Your task to perform on an android device: Do I have any events today? Image 0: 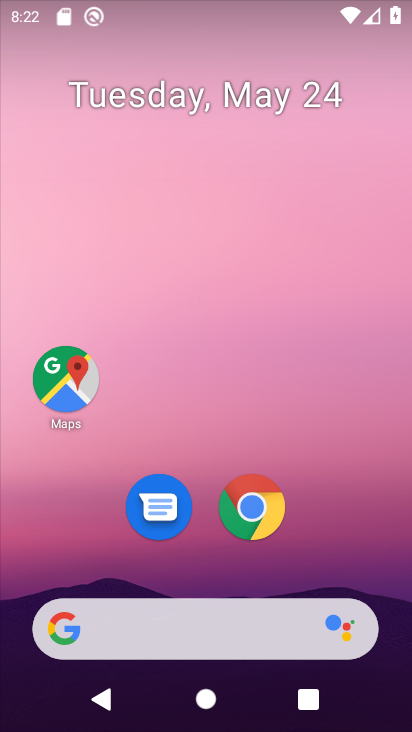
Step 0: press home button
Your task to perform on an android device: Do I have any events today? Image 1: 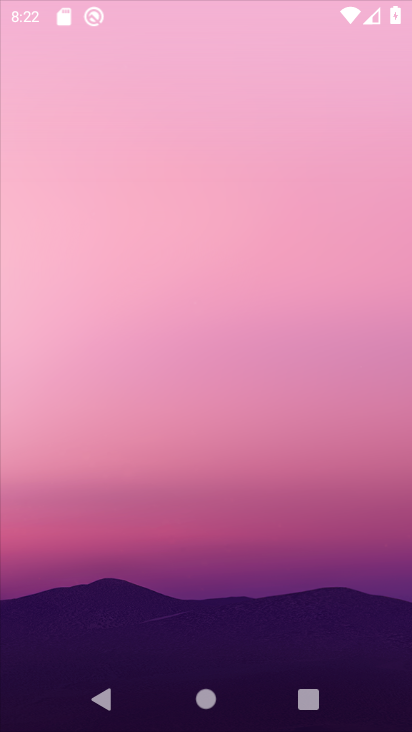
Step 1: drag from (263, 21) to (148, 15)
Your task to perform on an android device: Do I have any events today? Image 2: 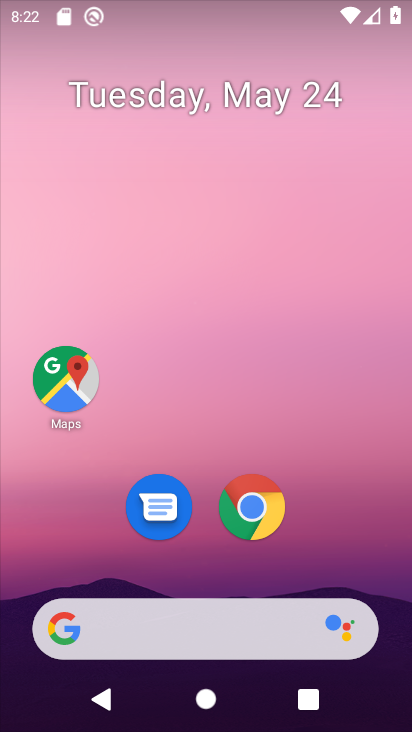
Step 2: drag from (197, 581) to (233, 28)
Your task to perform on an android device: Do I have any events today? Image 3: 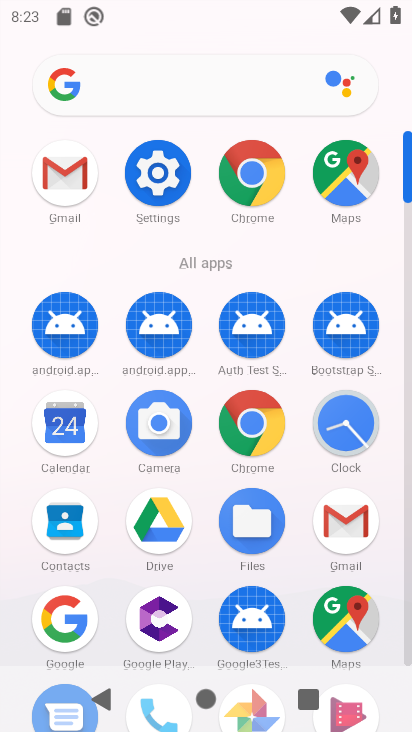
Step 3: click (78, 411)
Your task to perform on an android device: Do I have any events today? Image 4: 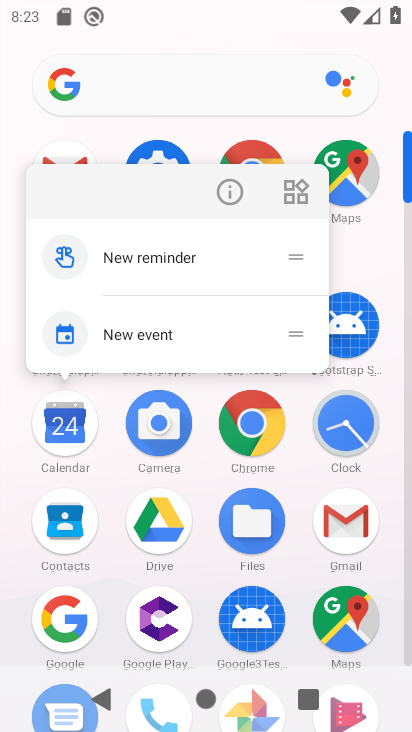
Step 4: click (238, 188)
Your task to perform on an android device: Do I have any events today? Image 5: 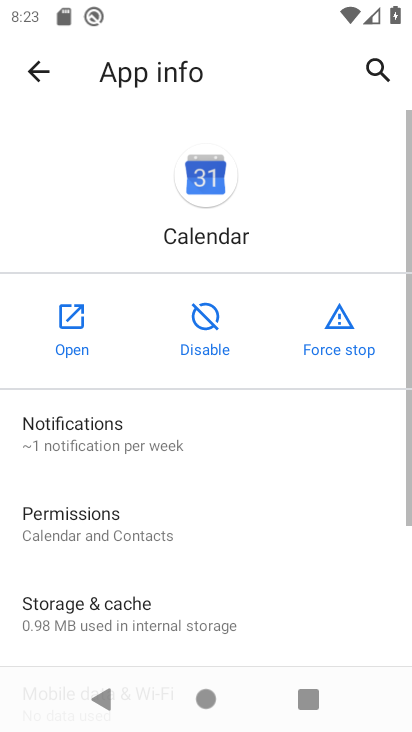
Step 5: click (57, 337)
Your task to perform on an android device: Do I have any events today? Image 6: 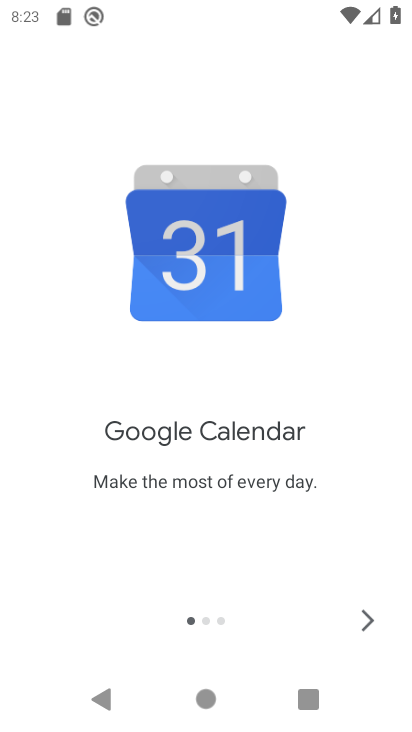
Step 6: click (361, 619)
Your task to perform on an android device: Do I have any events today? Image 7: 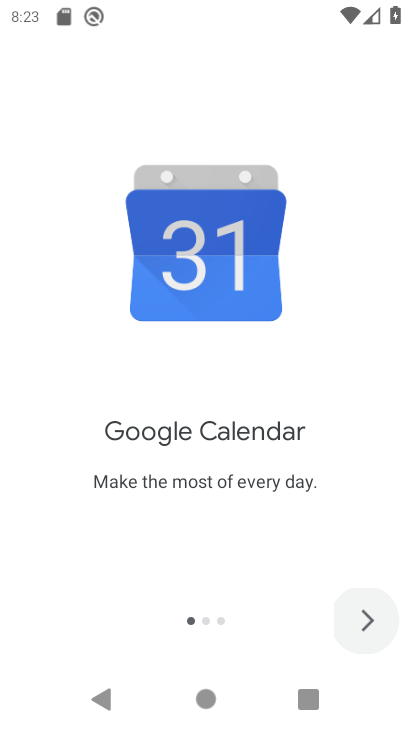
Step 7: click (361, 619)
Your task to perform on an android device: Do I have any events today? Image 8: 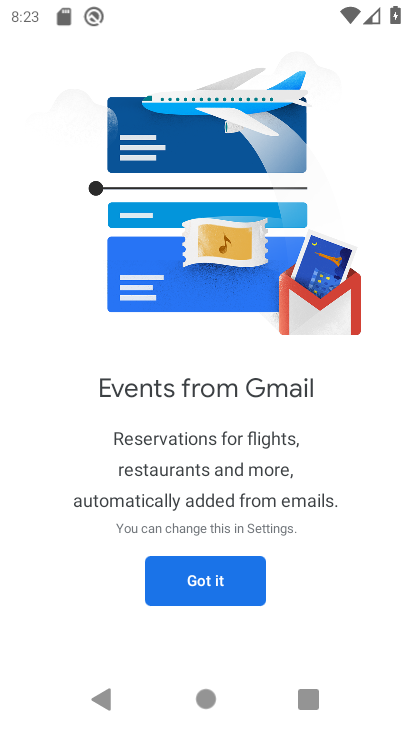
Step 8: click (361, 618)
Your task to perform on an android device: Do I have any events today? Image 9: 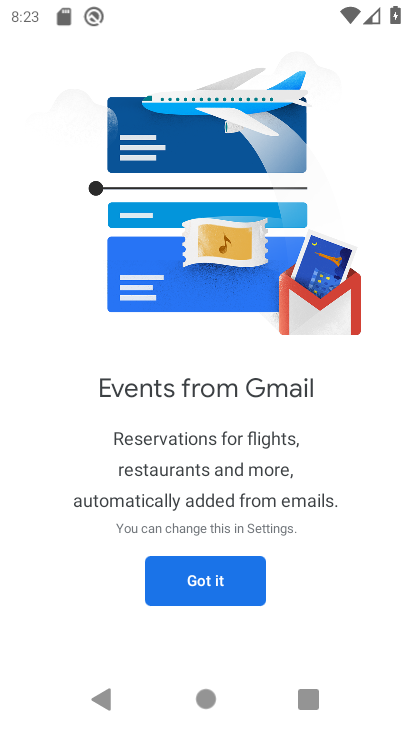
Step 9: click (231, 578)
Your task to perform on an android device: Do I have any events today? Image 10: 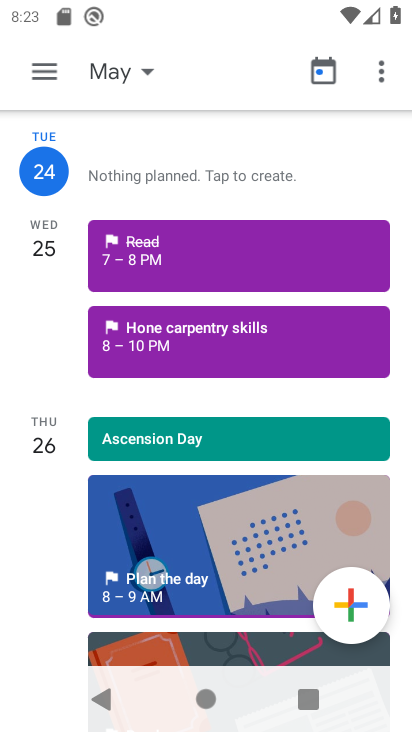
Step 10: click (255, 243)
Your task to perform on an android device: Do I have any events today? Image 11: 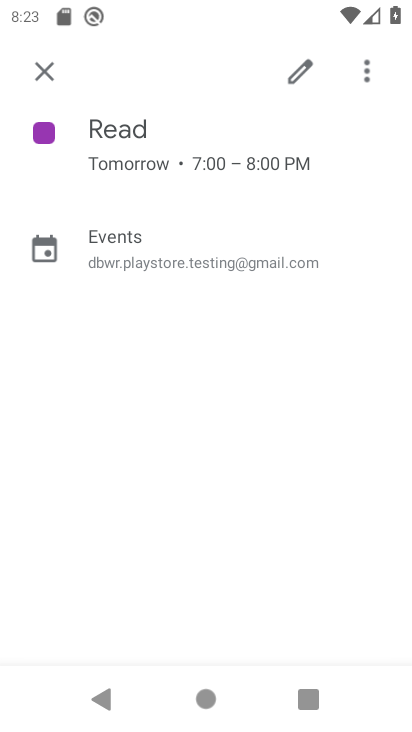
Step 11: drag from (255, 211) to (287, 694)
Your task to perform on an android device: Do I have any events today? Image 12: 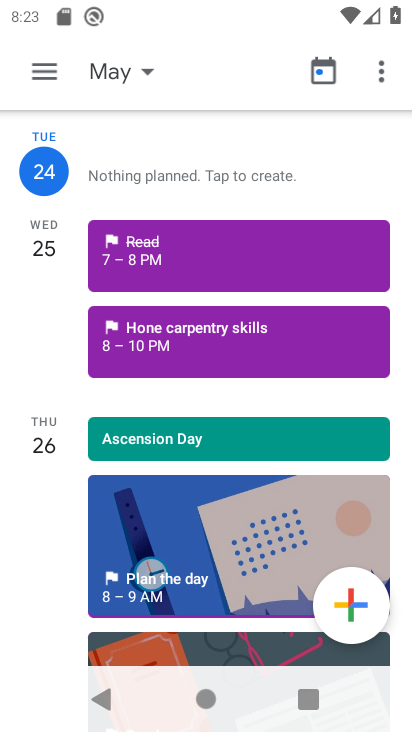
Step 12: drag from (139, 568) to (191, 102)
Your task to perform on an android device: Do I have any events today? Image 13: 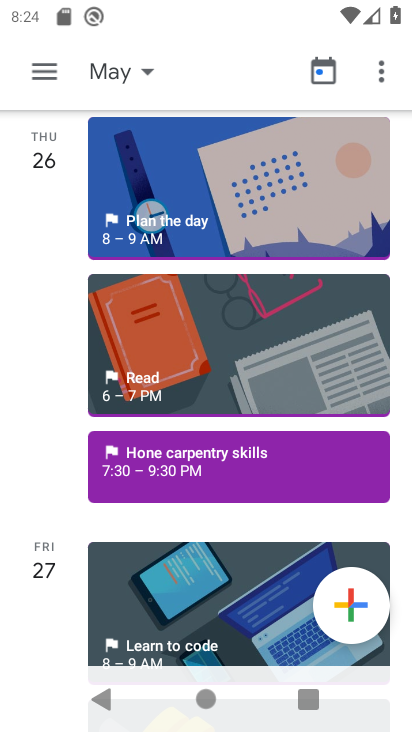
Step 13: click (136, 66)
Your task to perform on an android device: Do I have any events today? Image 14: 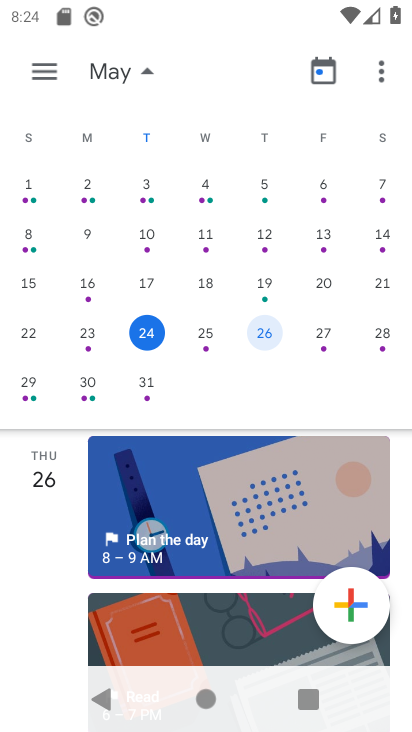
Step 14: click (142, 338)
Your task to perform on an android device: Do I have any events today? Image 15: 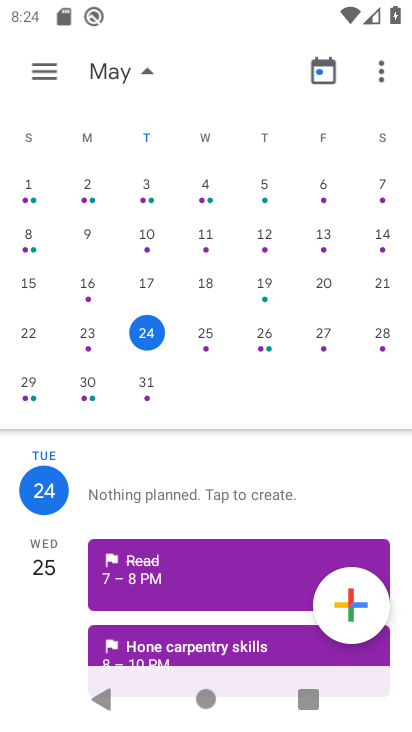
Step 15: task complete